Your task to perform on an android device: turn on bluetooth scan Image 0: 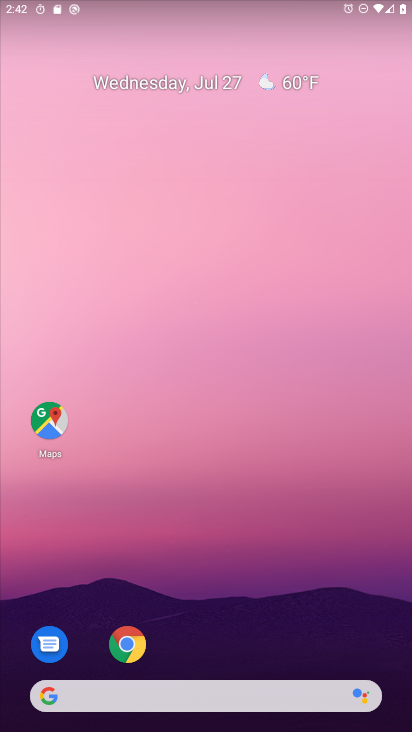
Step 0: drag from (185, 554) to (238, 139)
Your task to perform on an android device: turn on bluetooth scan Image 1: 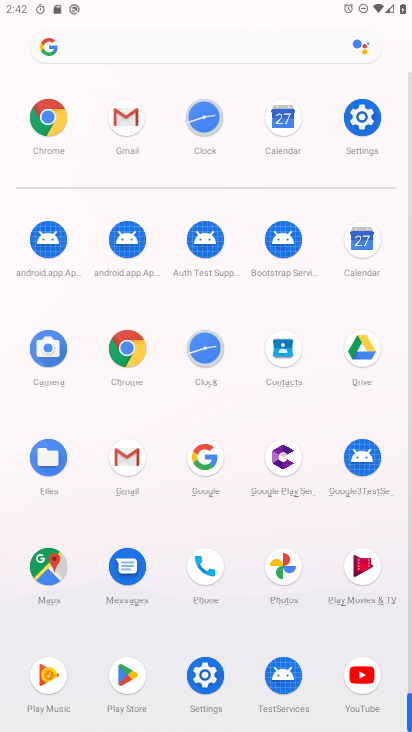
Step 1: click (201, 678)
Your task to perform on an android device: turn on bluetooth scan Image 2: 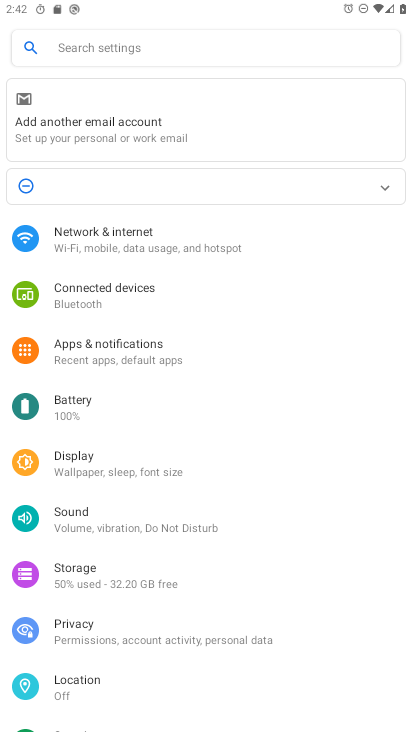
Step 2: click (126, 338)
Your task to perform on an android device: turn on bluetooth scan Image 3: 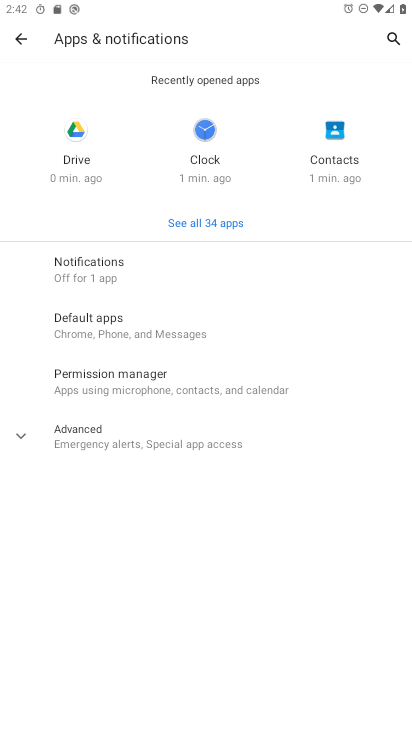
Step 3: click (18, 32)
Your task to perform on an android device: turn on bluetooth scan Image 4: 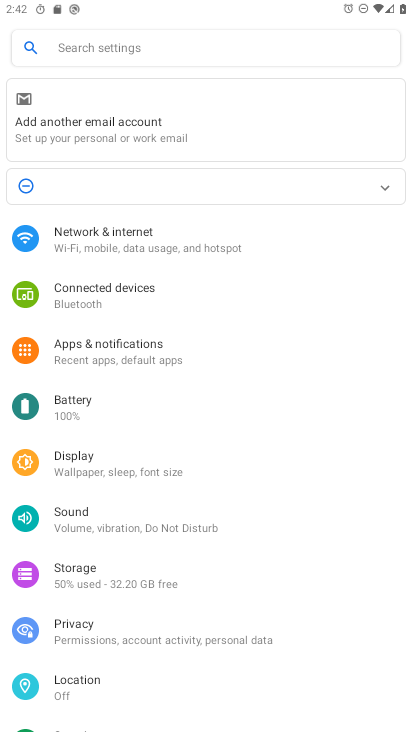
Step 4: drag from (192, 621) to (262, 189)
Your task to perform on an android device: turn on bluetooth scan Image 5: 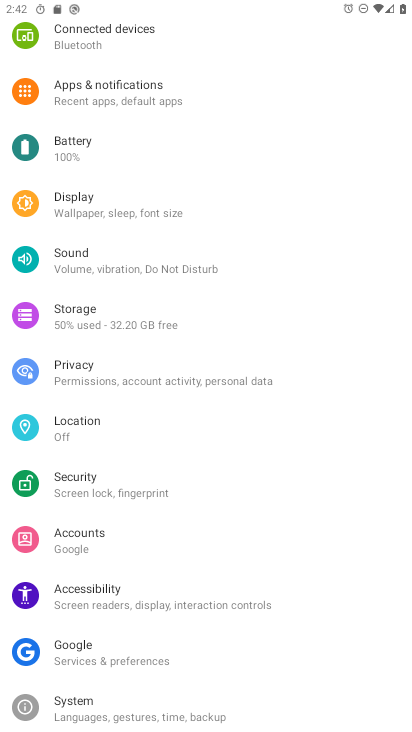
Step 5: click (106, 436)
Your task to perform on an android device: turn on bluetooth scan Image 6: 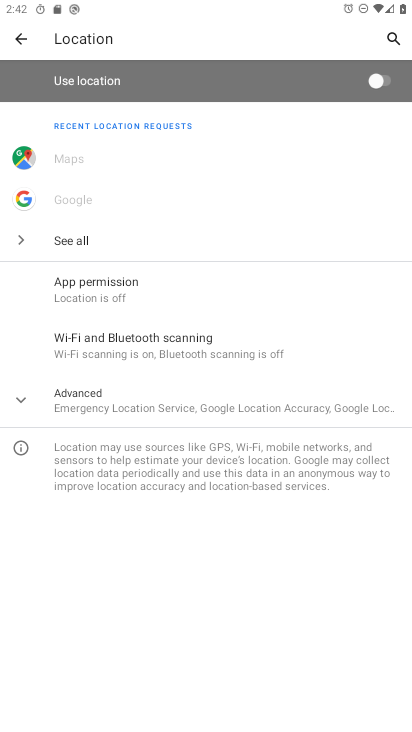
Step 6: click (107, 396)
Your task to perform on an android device: turn on bluetooth scan Image 7: 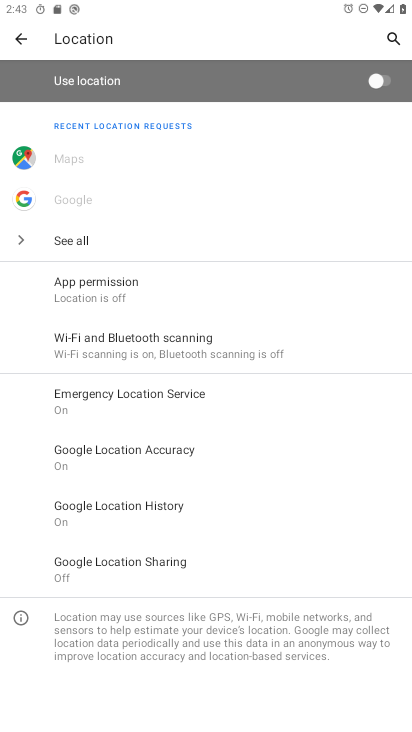
Step 7: click (184, 352)
Your task to perform on an android device: turn on bluetooth scan Image 8: 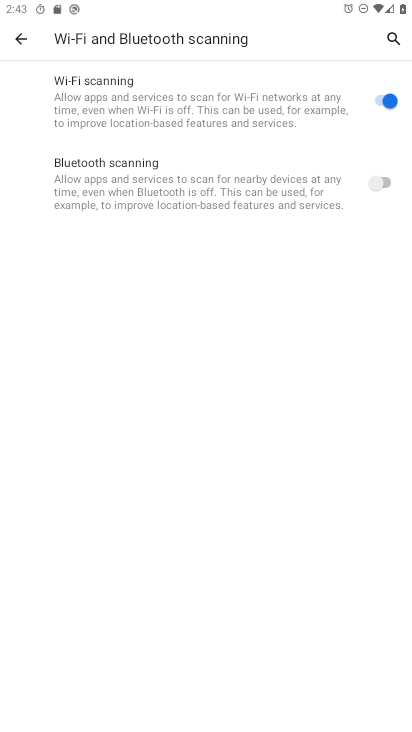
Step 8: click (324, 192)
Your task to perform on an android device: turn on bluetooth scan Image 9: 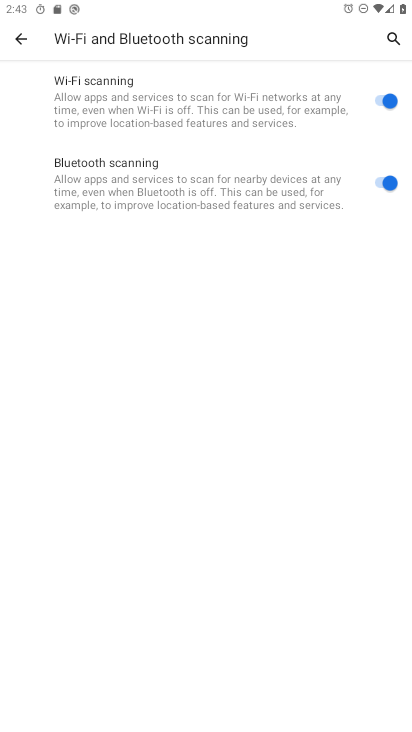
Step 9: task complete